Your task to perform on an android device: Open the phone app and click the voicemail tab. Image 0: 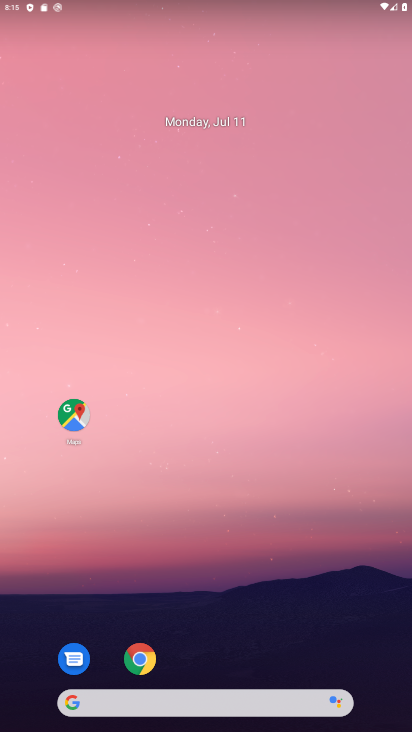
Step 0: drag from (28, 717) to (185, 140)
Your task to perform on an android device: Open the phone app and click the voicemail tab. Image 1: 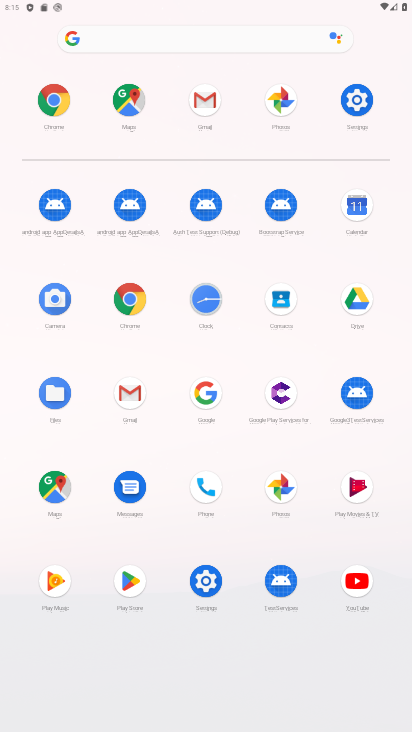
Step 1: click (196, 487)
Your task to perform on an android device: Open the phone app and click the voicemail tab. Image 2: 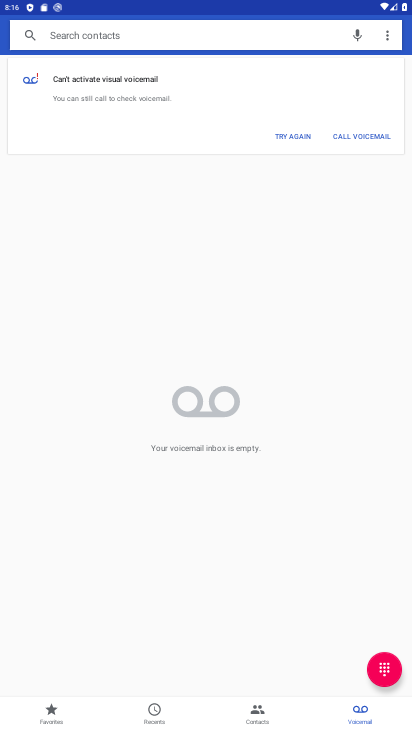
Step 2: click (360, 706)
Your task to perform on an android device: Open the phone app and click the voicemail tab. Image 3: 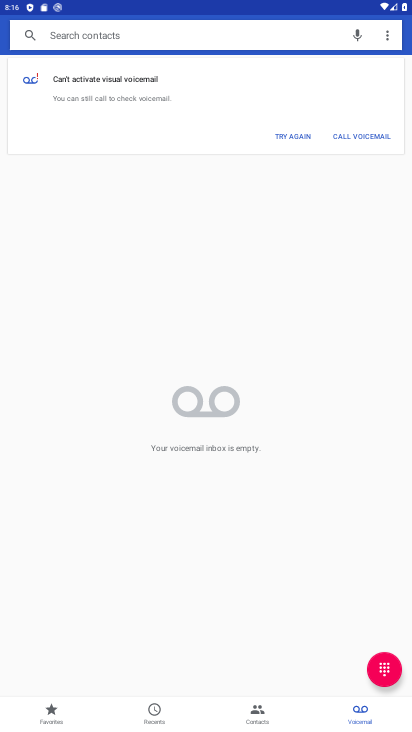
Step 3: task complete